Your task to perform on an android device: turn off translation in the chrome app Image 0: 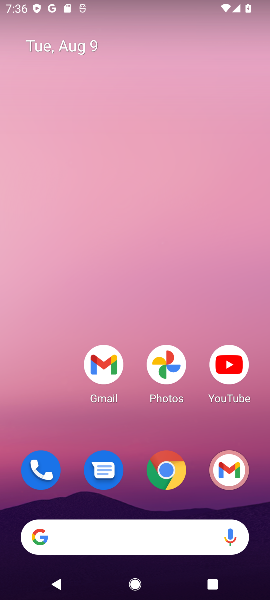
Step 0: click (169, 490)
Your task to perform on an android device: turn off translation in the chrome app Image 1: 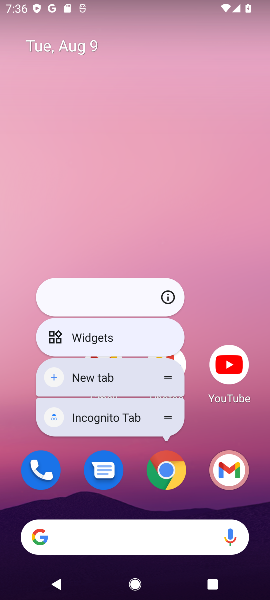
Step 1: click (175, 465)
Your task to perform on an android device: turn off translation in the chrome app Image 2: 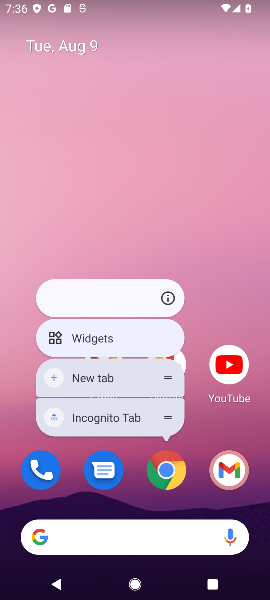
Step 2: click (175, 465)
Your task to perform on an android device: turn off translation in the chrome app Image 3: 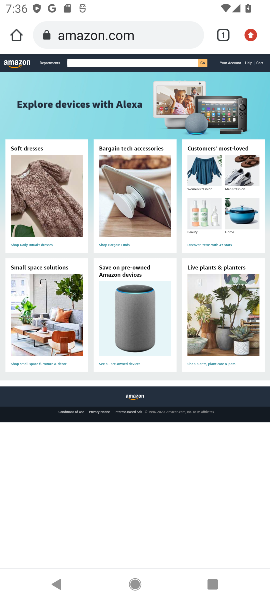
Step 3: click (250, 33)
Your task to perform on an android device: turn off translation in the chrome app Image 4: 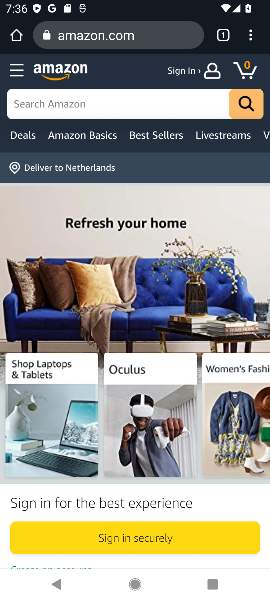
Step 4: click (250, 33)
Your task to perform on an android device: turn off translation in the chrome app Image 5: 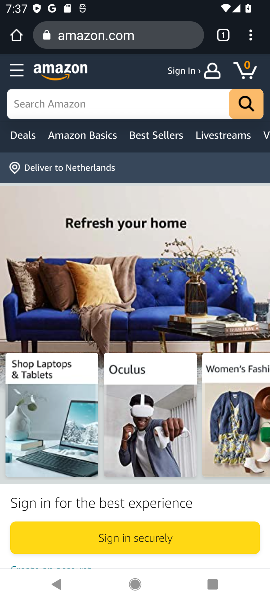
Step 5: click (250, 33)
Your task to perform on an android device: turn off translation in the chrome app Image 6: 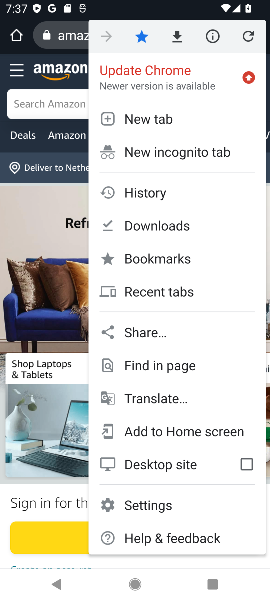
Step 6: click (170, 504)
Your task to perform on an android device: turn off translation in the chrome app Image 7: 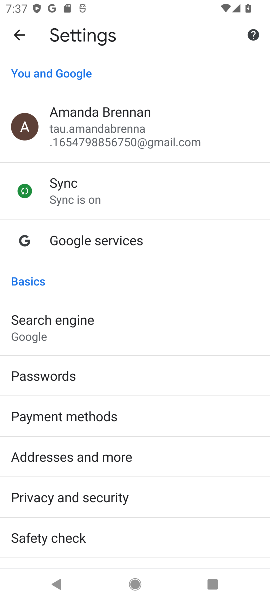
Step 7: drag from (170, 469) to (172, 64)
Your task to perform on an android device: turn off translation in the chrome app Image 8: 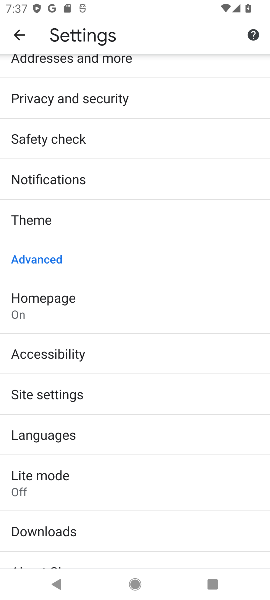
Step 8: click (94, 430)
Your task to perform on an android device: turn off translation in the chrome app Image 9: 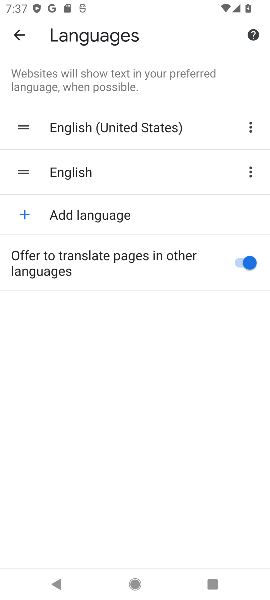
Step 9: click (256, 262)
Your task to perform on an android device: turn off translation in the chrome app Image 10: 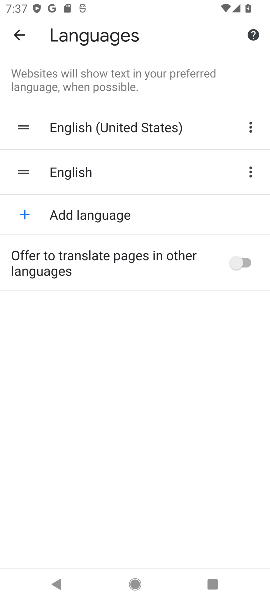
Step 10: task complete